Your task to perform on an android device: add a contact in the contacts app Image 0: 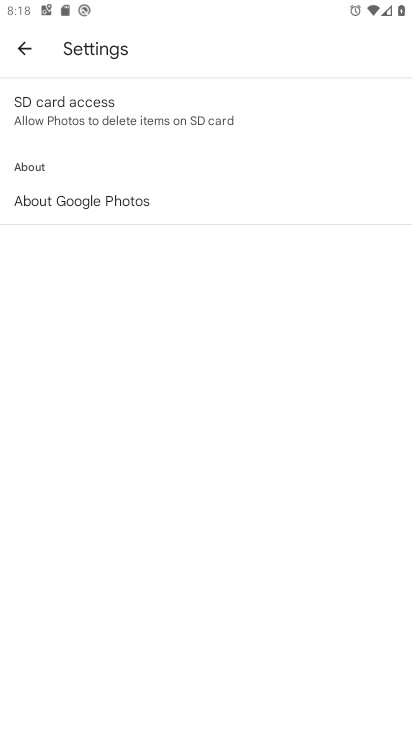
Step 0: press home button
Your task to perform on an android device: add a contact in the contacts app Image 1: 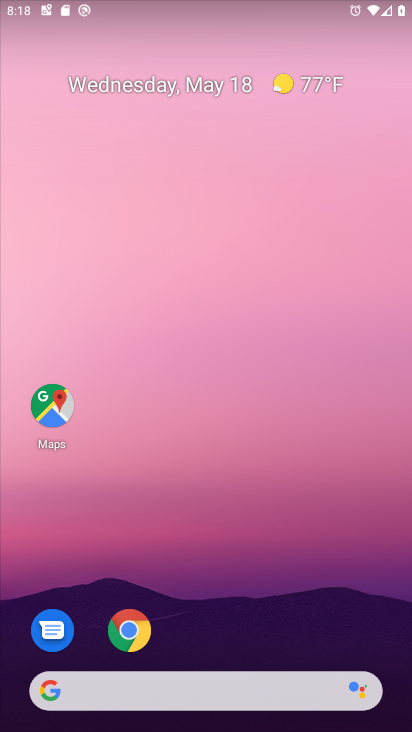
Step 1: drag from (267, 616) to (293, 294)
Your task to perform on an android device: add a contact in the contacts app Image 2: 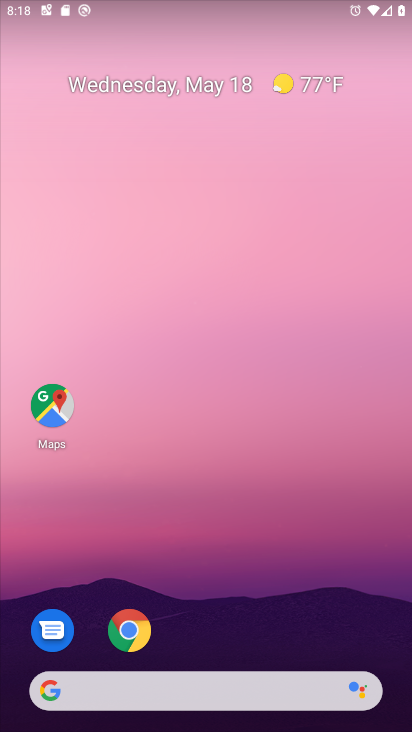
Step 2: drag from (280, 504) to (298, 253)
Your task to perform on an android device: add a contact in the contacts app Image 3: 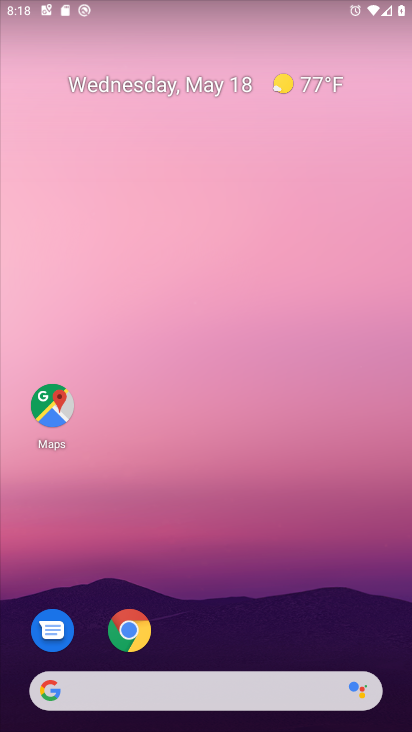
Step 3: drag from (261, 595) to (270, 180)
Your task to perform on an android device: add a contact in the contacts app Image 4: 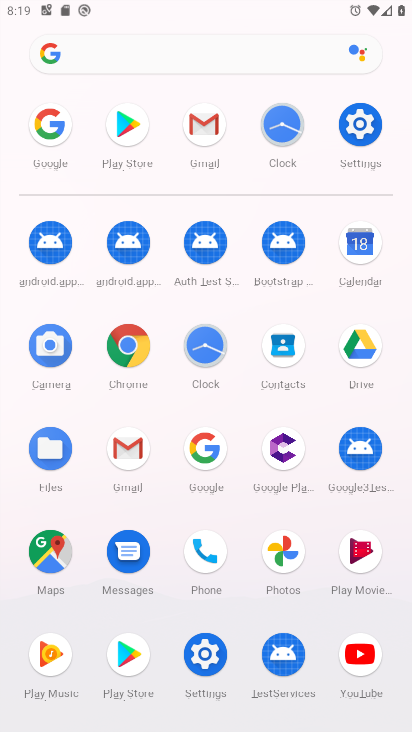
Step 4: click (275, 353)
Your task to perform on an android device: add a contact in the contacts app Image 5: 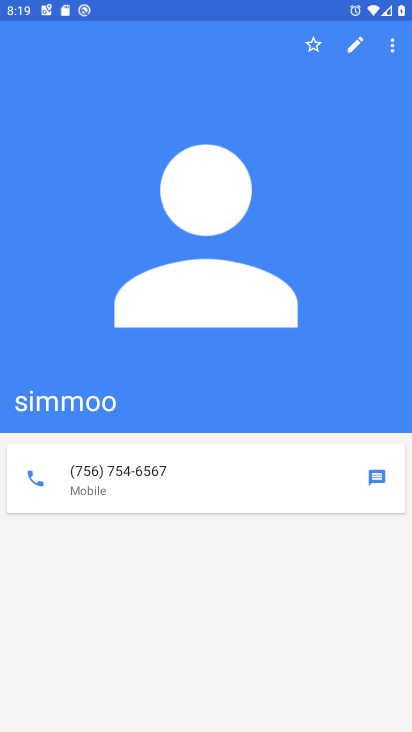
Step 5: press back button
Your task to perform on an android device: add a contact in the contacts app Image 6: 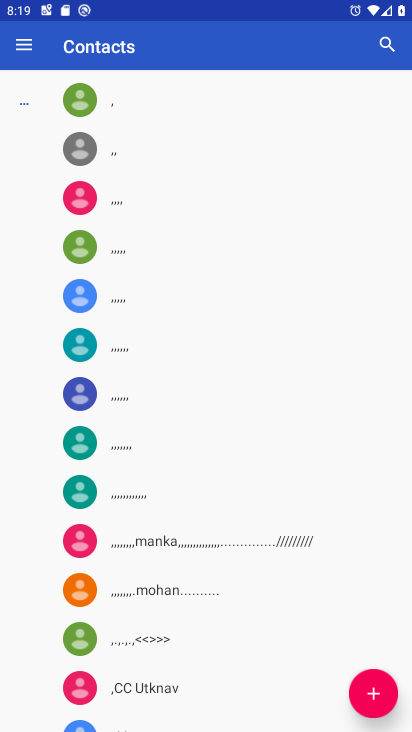
Step 6: click (353, 709)
Your task to perform on an android device: add a contact in the contacts app Image 7: 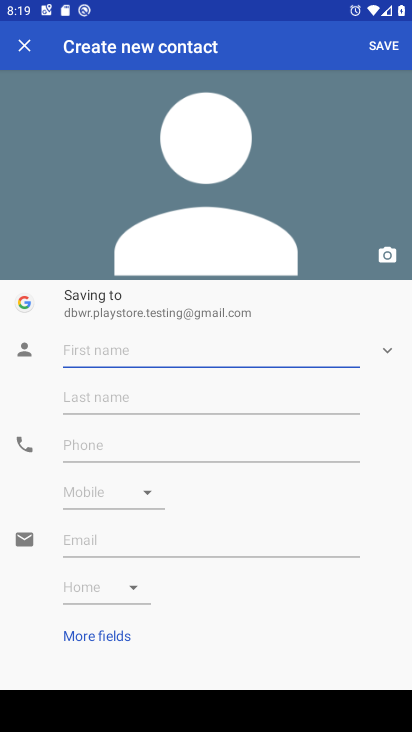
Step 7: click (98, 350)
Your task to perform on an android device: add a contact in the contacts app Image 8: 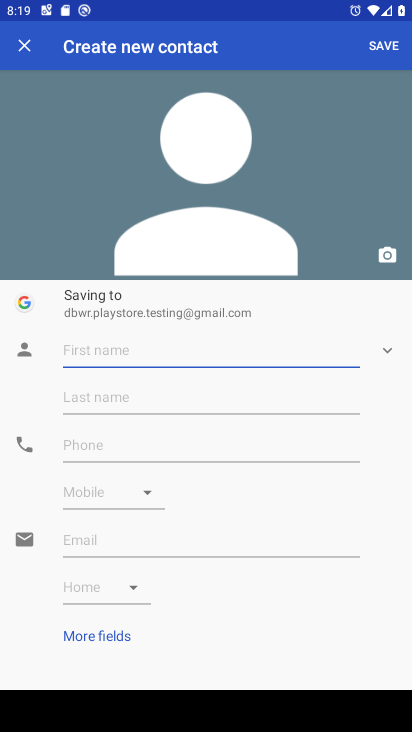
Step 8: type "ounnu"
Your task to perform on an android device: add a contact in the contacts app Image 9: 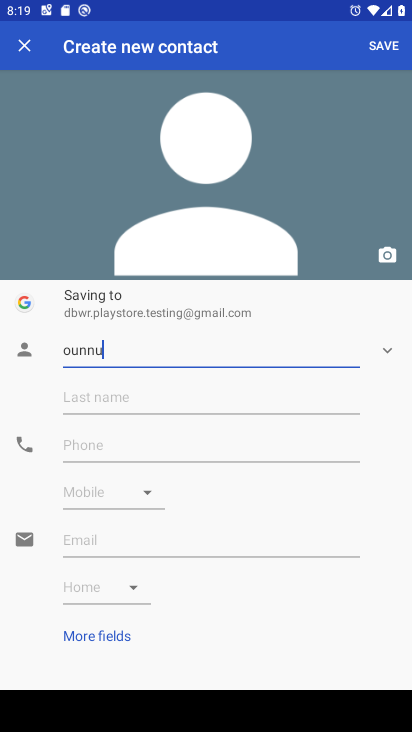
Step 9: click (96, 440)
Your task to perform on an android device: add a contact in the contacts app Image 10: 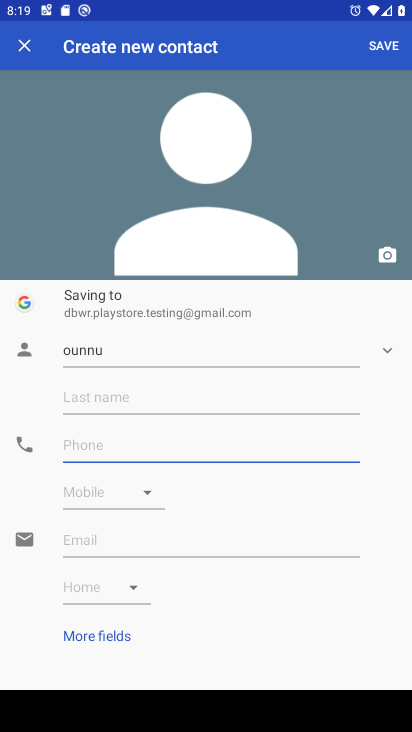
Step 10: type "75676575765"
Your task to perform on an android device: add a contact in the contacts app Image 11: 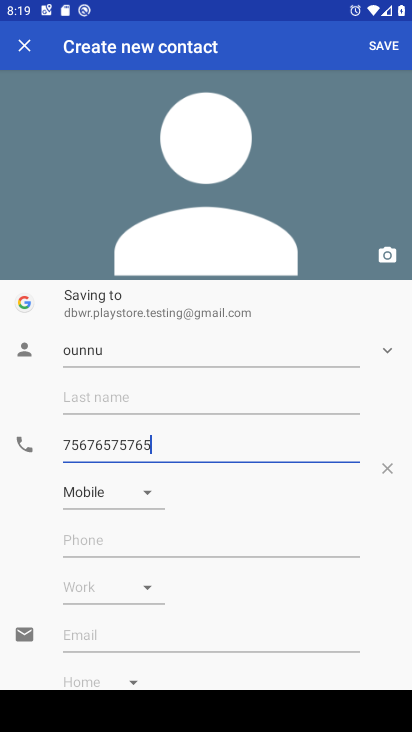
Step 11: click (388, 36)
Your task to perform on an android device: add a contact in the contacts app Image 12: 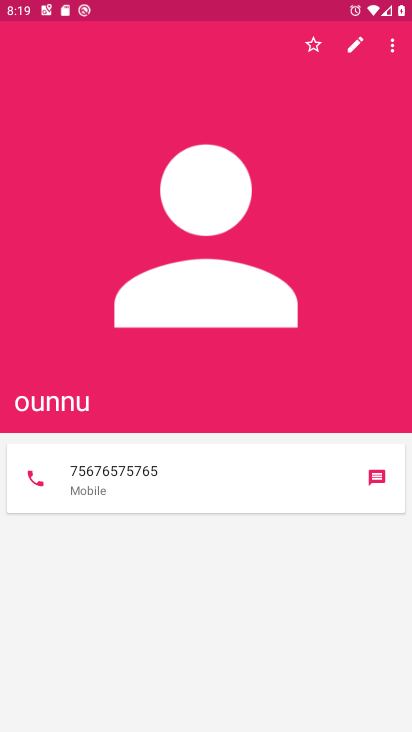
Step 12: task complete